Your task to perform on an android device: Clear the shopping cart on amazon.com. Add "asus zenbook" to the cart on amazon.com Image 0: 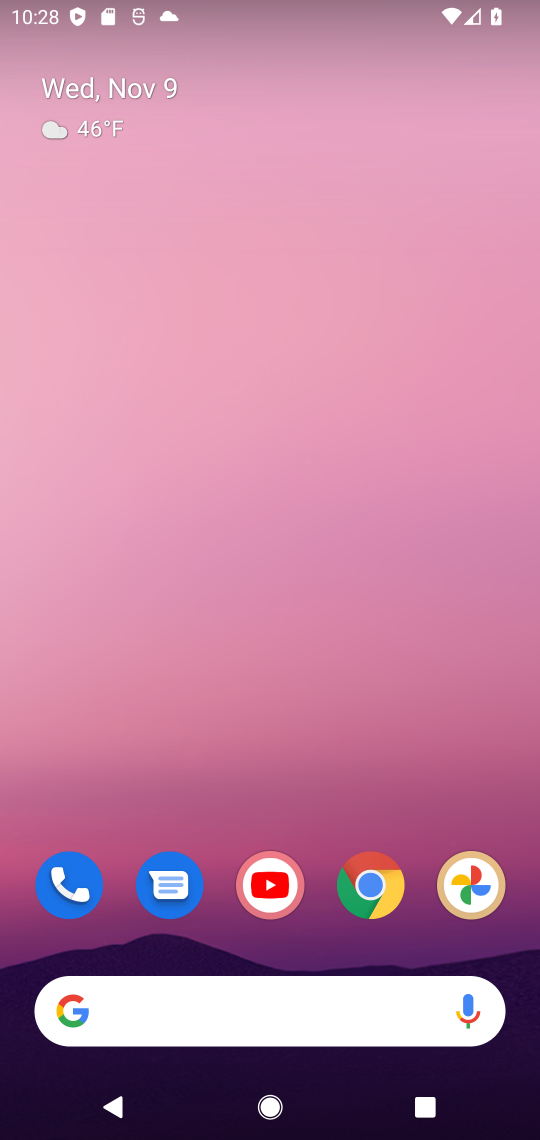
Step 0: click (368, 888)
Your task to perform on an android device: Clear the shopping cart on amazon.com. Add "asus zenbook" to the cart on amazon.com Image 1: 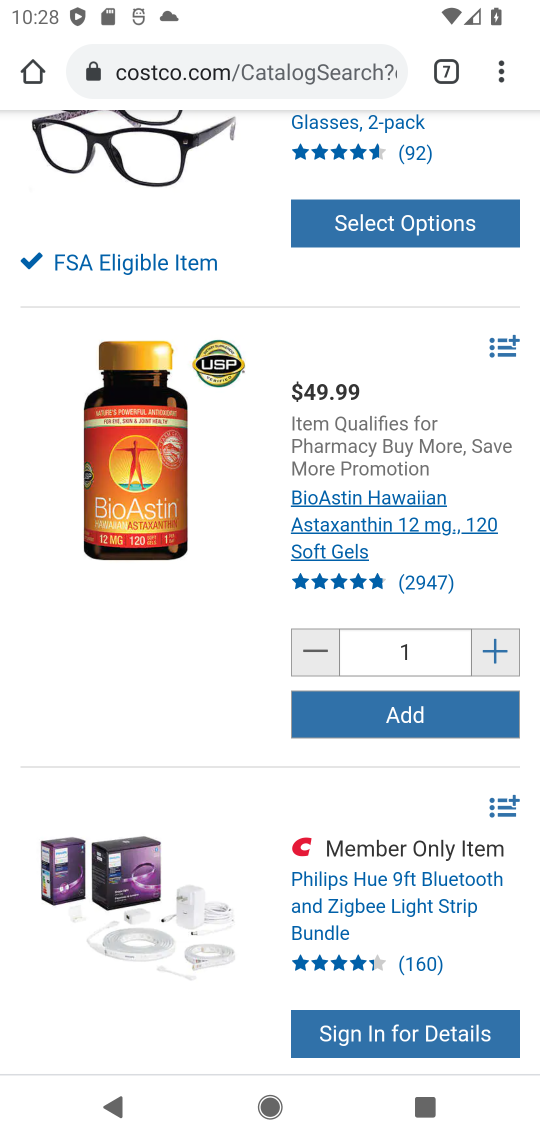
Step 1: click (441, 62)
Your task to perform on an android device: Clear the shopping cart on amazon.com. Add "asus zenbook" to the cart on amazon.com Image 2: 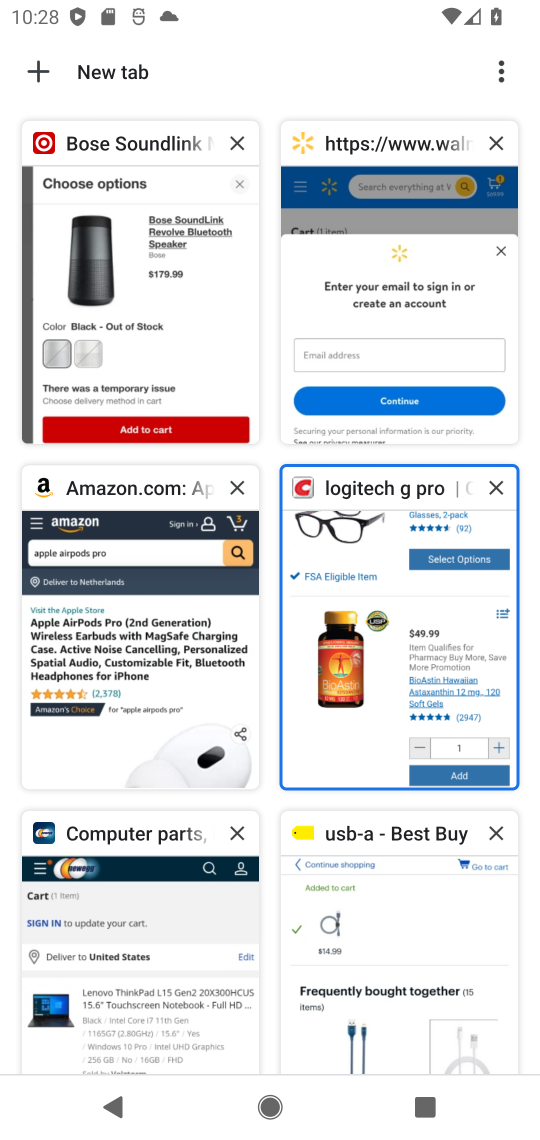
Step 2: click (164, 579)
Your task to perform on an android device: Clear the shopping cart on amazon.com. Add "asus zenbook" to the cart on amazon.com Image 3: 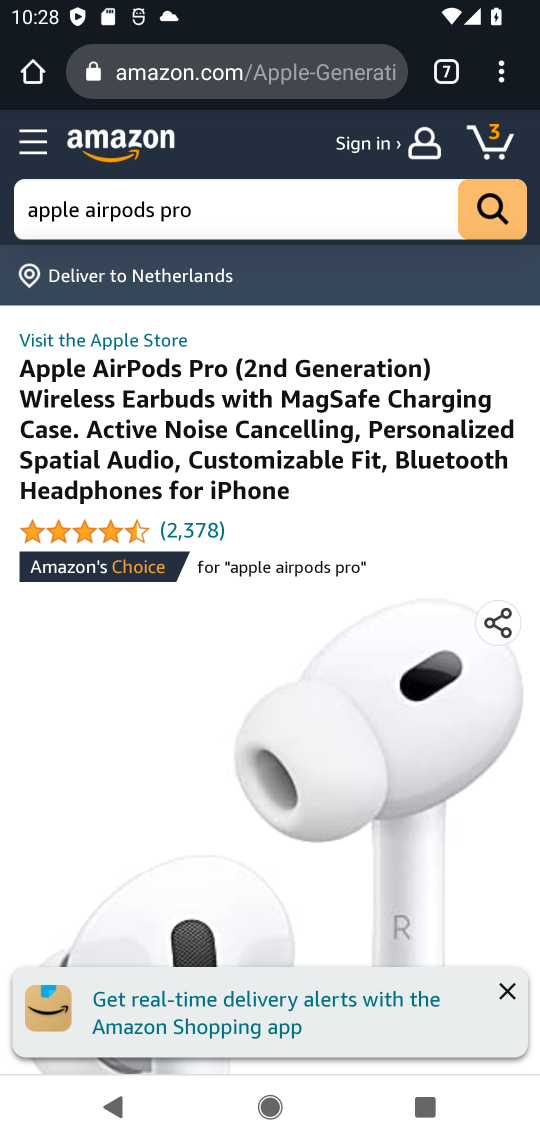
Step 3: click (274, 209)
Your task to perform on an android device: Clear the shopping cart on amazon.com. Add "asus zenbook" to the cart on amazon.com Image 4: 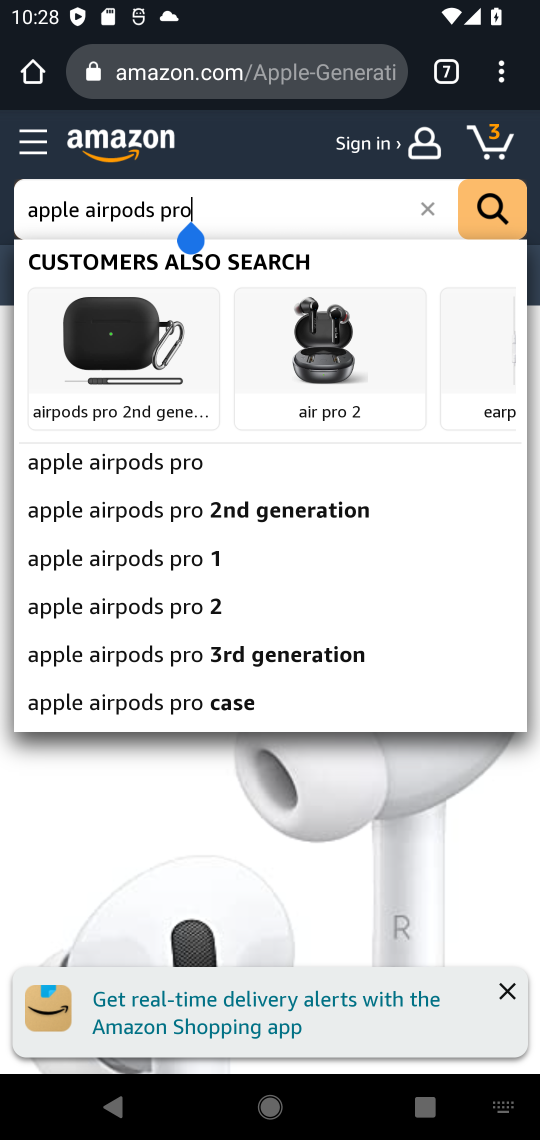
Step 4: click (429, 205)
Your task to perform on an android device: Clear the shopping cart on amazon.com. Add "asus zenbook" to the cart on amazon.com Image 5: 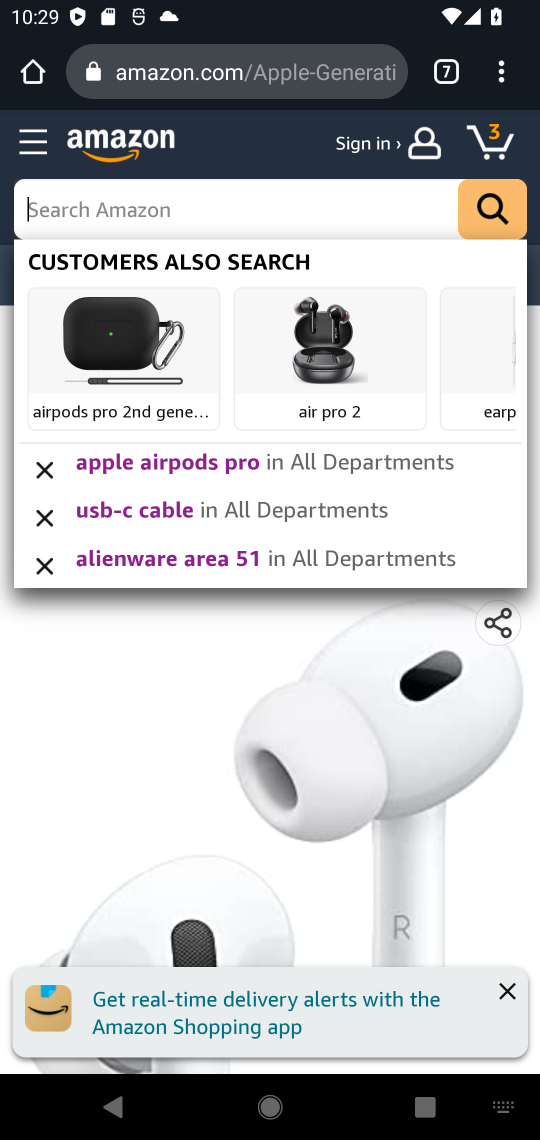
Step 5: type "asus zenbook"
Your task to perform on an android device: Clear the shopping cart on amazon.com. Add "asus zenbook" to the cart on amazon.com Image 6: 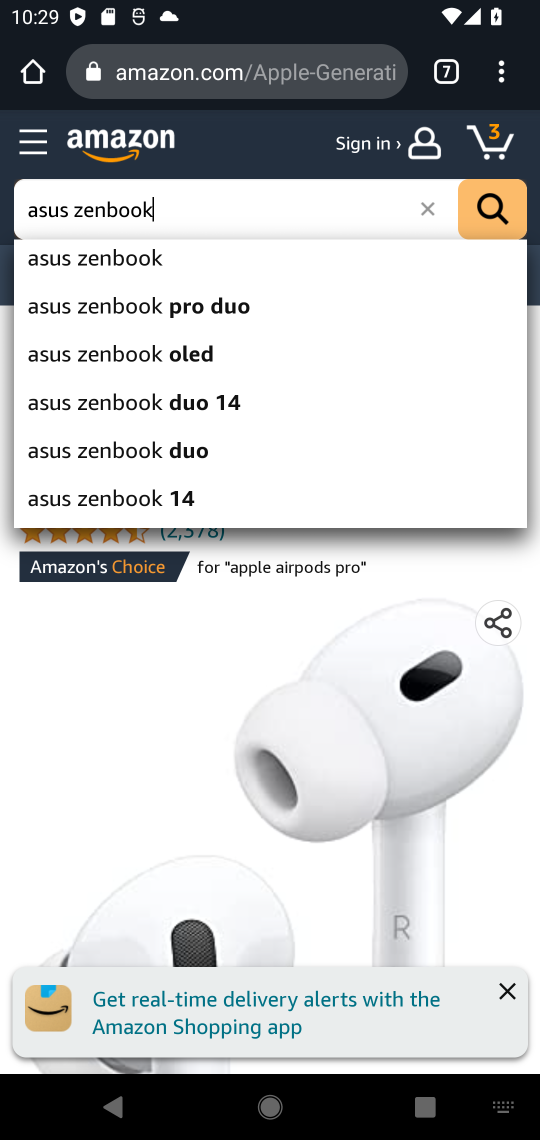
Step 6: click (141, 259)
Your task to perform on an android device: Clear the shopping cart on amazon.com. Add "asus zenbook" to the cart on amazon.com Image 7: 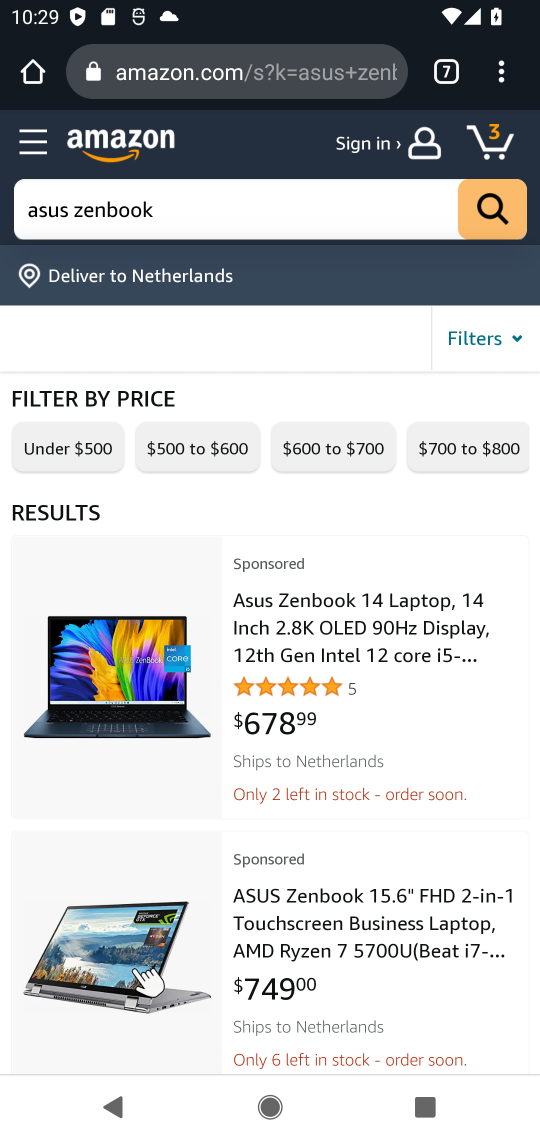
Step 7: click (353, 645)
Your task to perform on an android device: Clear the shopping cart on amazon.com. Add "asus zenbook" to the cart on amazon.com Image 8: 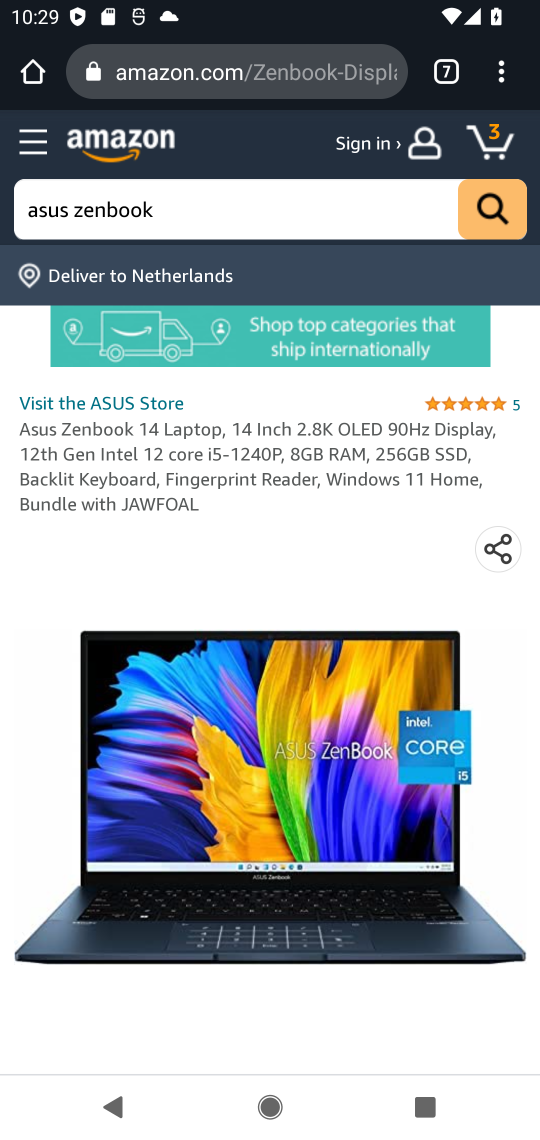
Step 8: drag from (360, 1048) to (376, 469)
Your task to perform on an android device: Clear the shopping cart on amazon.com. Add "asus zenbook" to the cart on amazon.com Image 9: 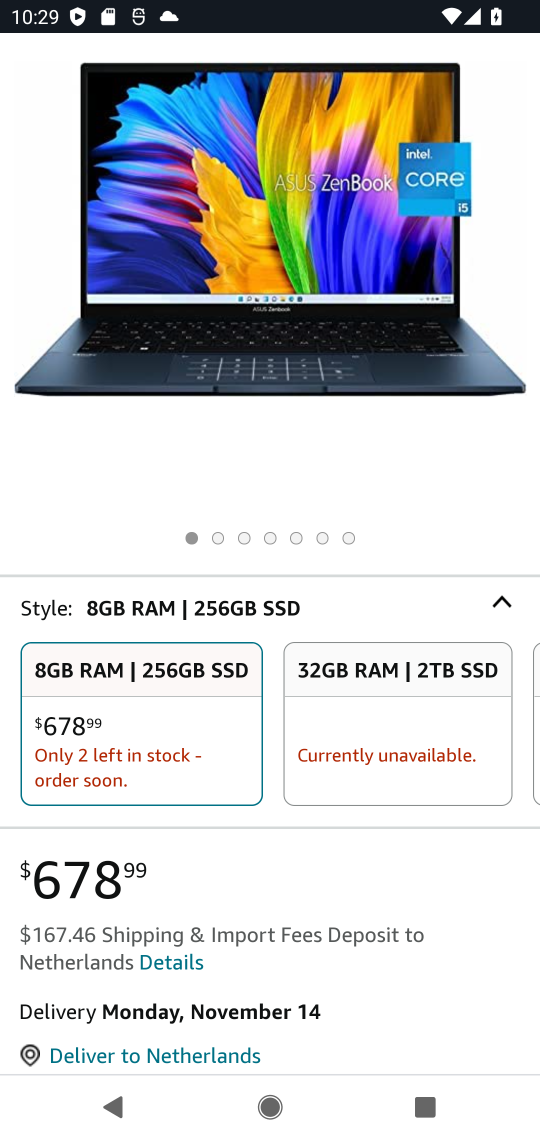
Step 9: drag from (315, 725) to (345, 322)
Your task to perform on an android device: Clear the shopping cart on amazon.com. Add "asus zenbook" to the cart on amazon.com Image 10: 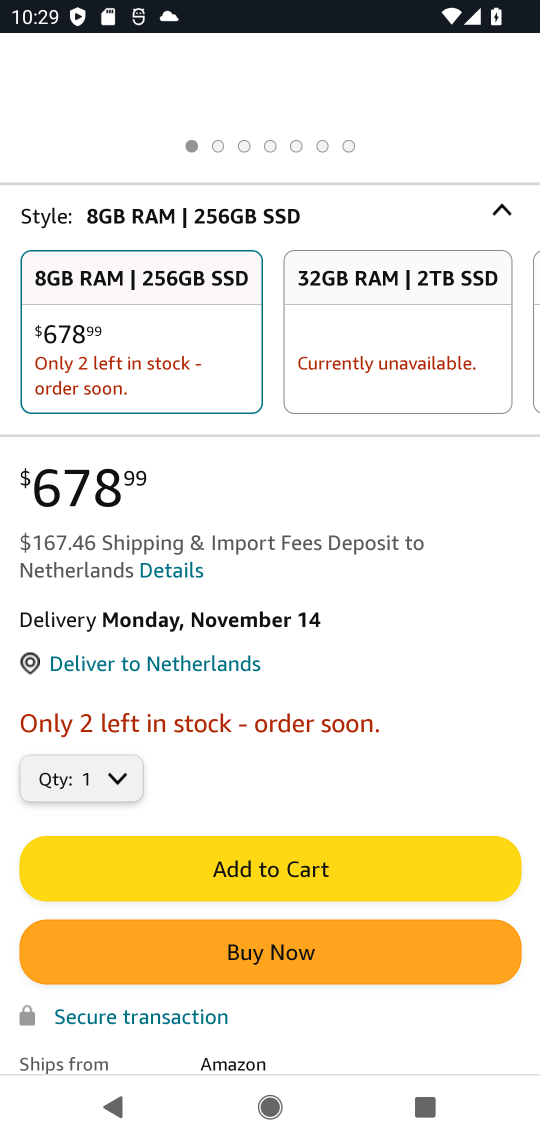
Step 10: click (299, 855)
Your task to perform on an android device: Clear the shopping cart on amazon.com. Add "asus zenbook" to the cart on amazon.com Image 11: 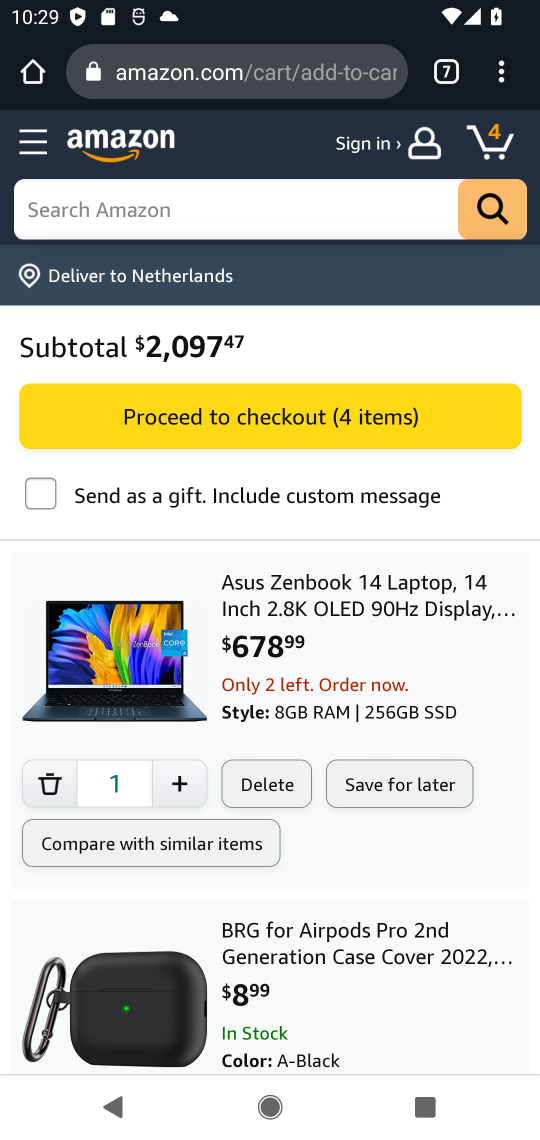
Step 11: drag from (342, 1017) to (333, 193)
Your task to perform on an android device: Clear the shopping cart on amazon.com. Add "asus zenbook" to the cart on amazon.com Image 12: 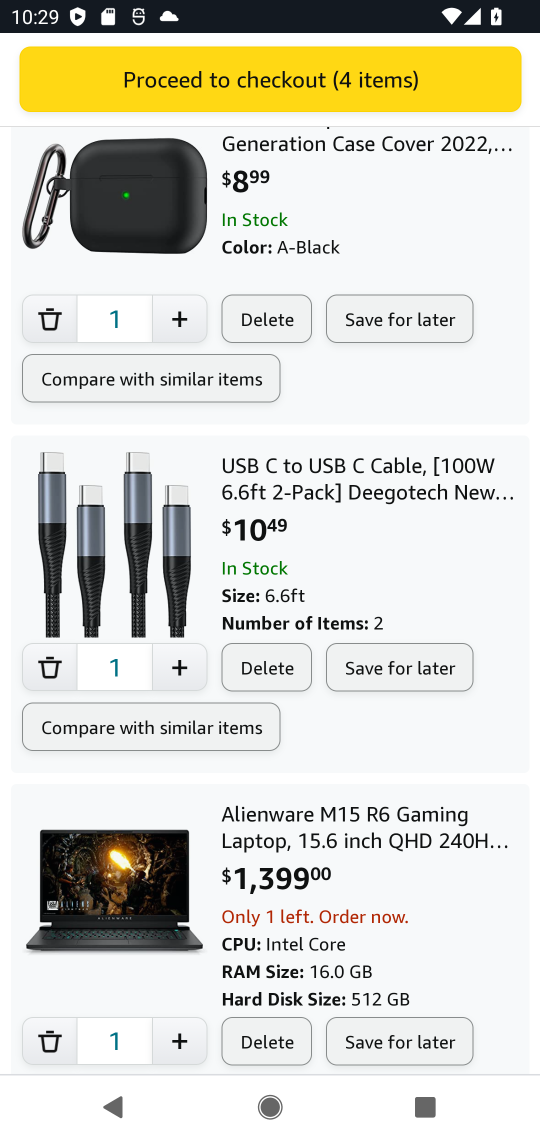
Step 12: click (59, 322)
Your task to perform on an android device: Clear the shopping cart on amazon.com. Add "asus zenbook" to the cart on amazon.com Image 13: 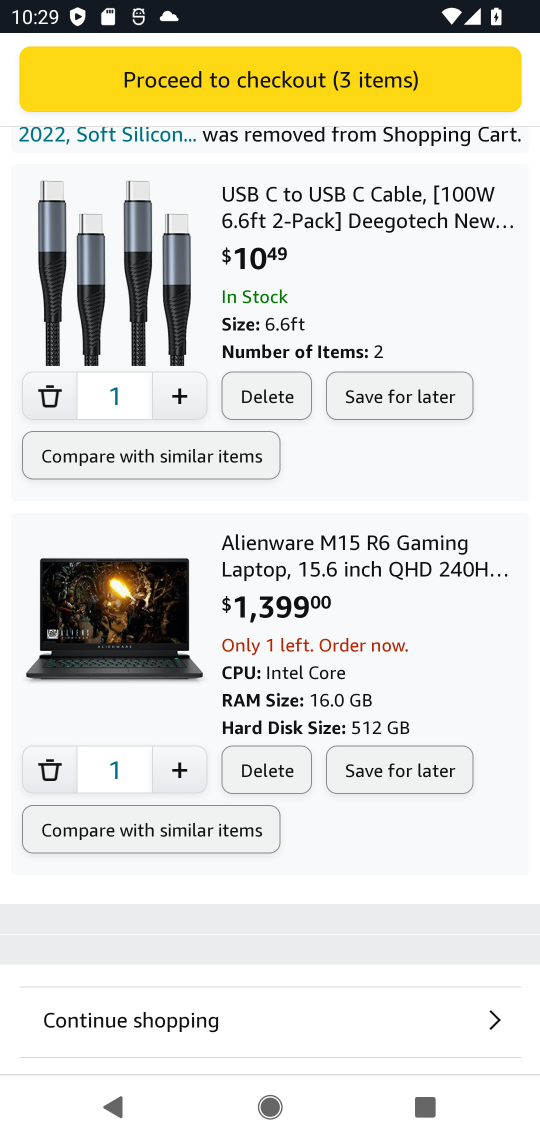
Step 13: click (47, 759)
Your task to perform on an android device: Clear the shopping cart on amazon.com. Add "asus zenbook" to the cart on amazon.com Image 14: 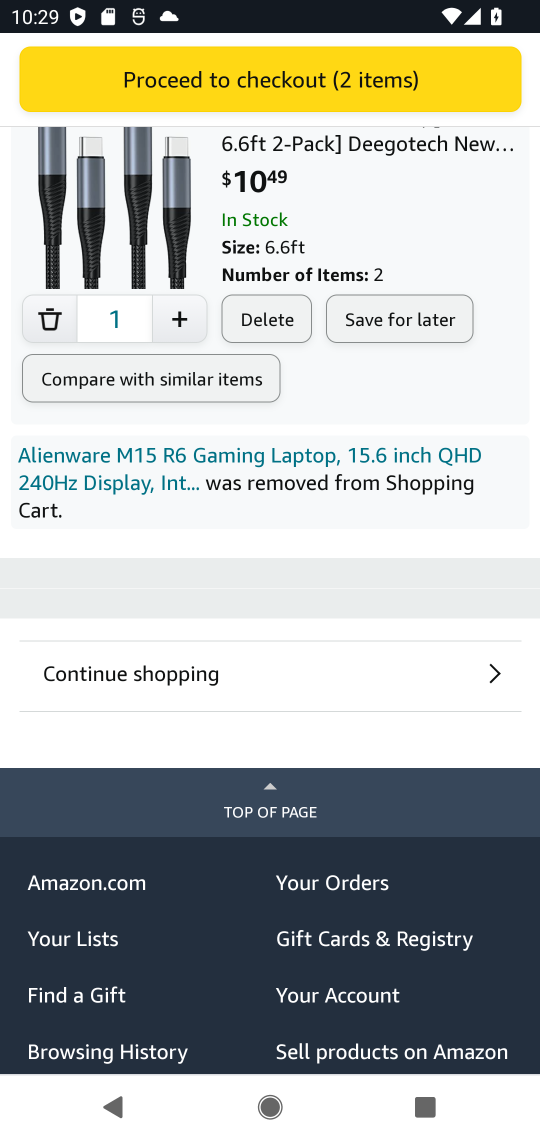
Step 14: click (50, 319)
Your task to perform on an android device: Clear the shopping cart on amazon.com. Add "asus zenbook" to the cart on amazon.com Image 15: 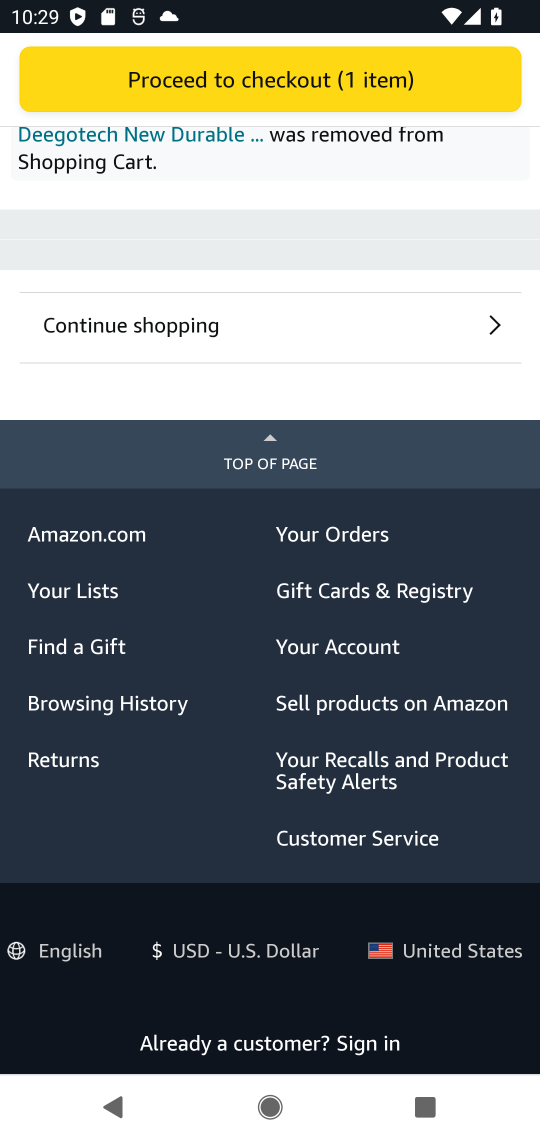
Step 15: task complete